Your task to perform on an android device: Open battery settings Image 0: 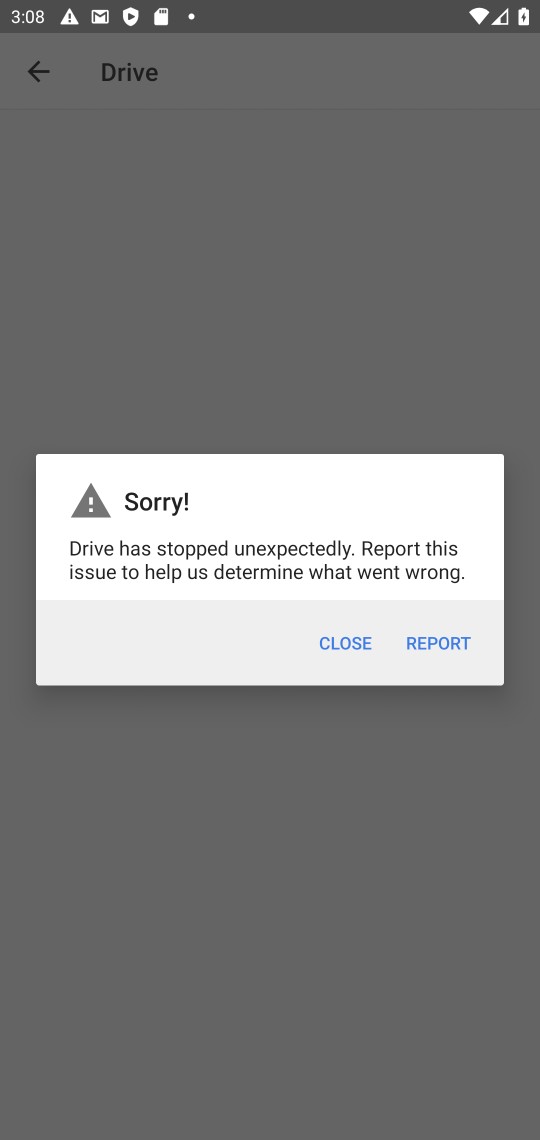
Step 0: press home button
Your task to perform on an android device: Open battery settings Image 1: 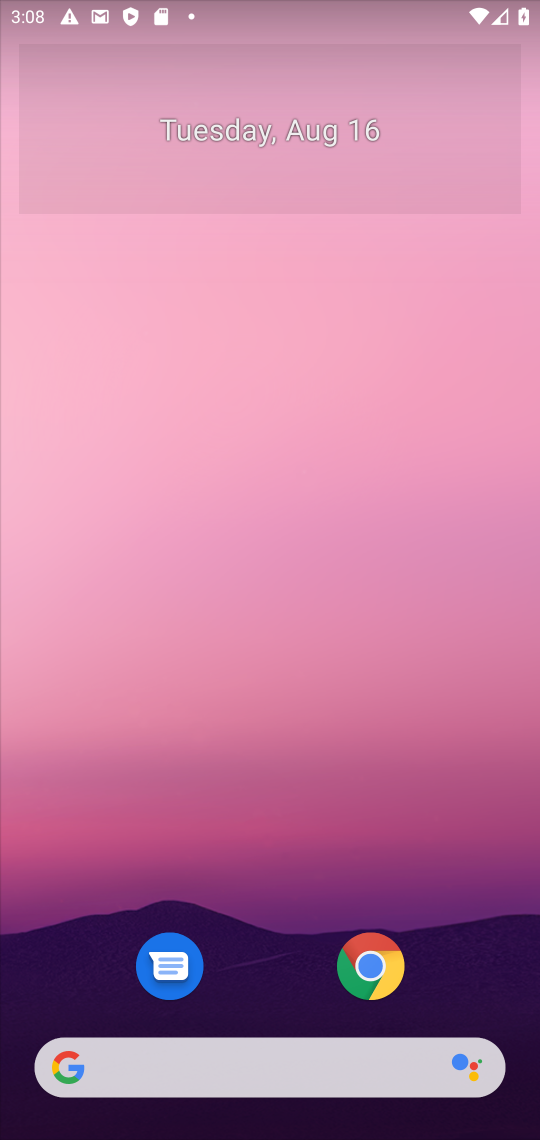
Step 1: drag from (24, 1097) to (249, 254)
Your task to perform on an android device: Open battery settings Image 2: 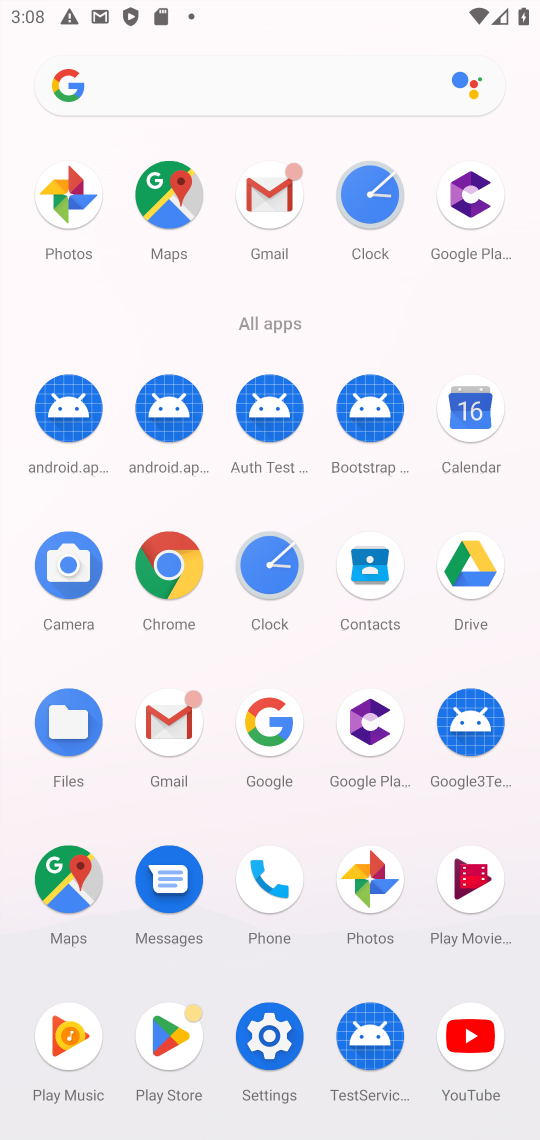
Step 2: click (279, 1047)
Your task to perform on an android device: Open battery settings Image 3: 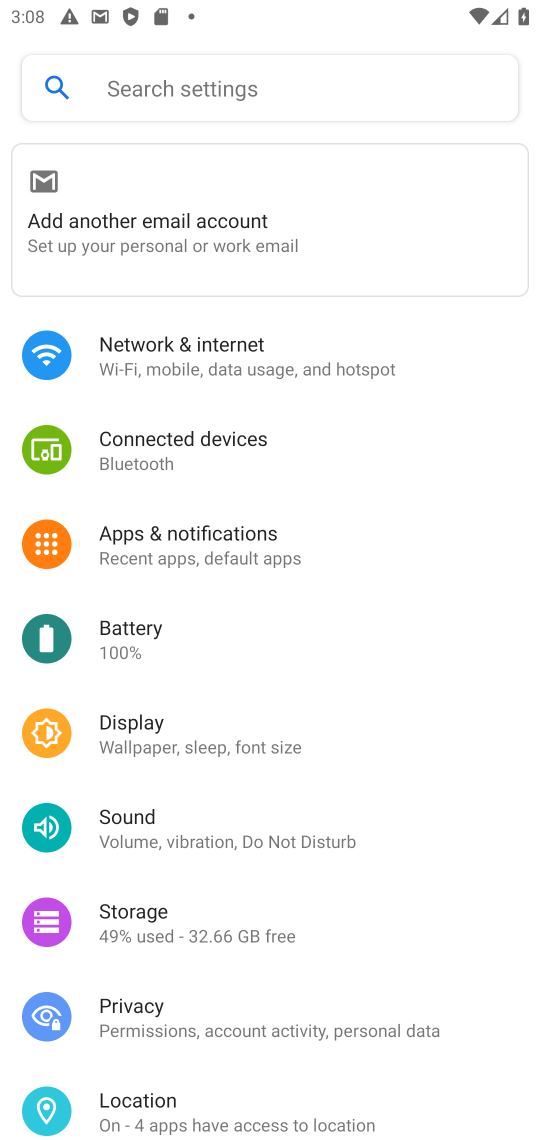
Step 3: click (119, 645)
Your task to perform on an android device: Open battery settings Image 4: 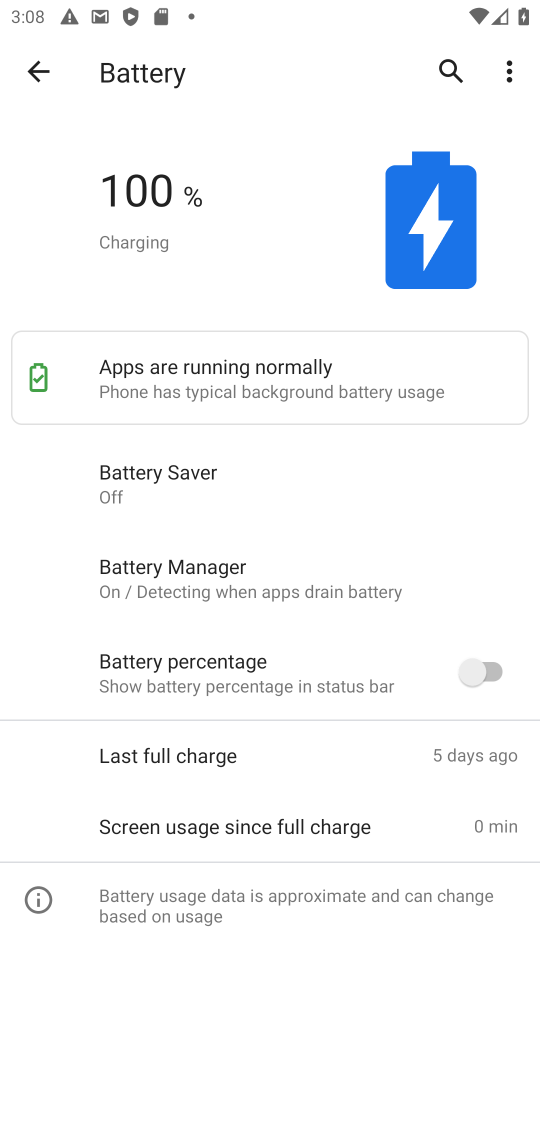
Step 4: task complete